Your task to perform on an android device: toggle translation in the chrome app Image 0: 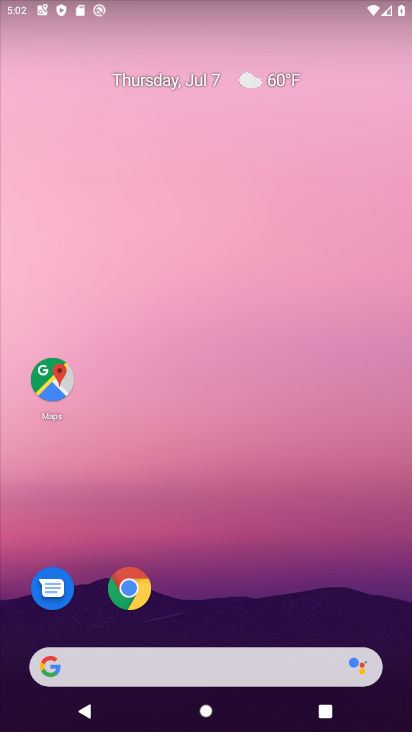
Step 0: click (236, 242)
Your task to perform on an android device: toggle translation in the chrome app Image 1: 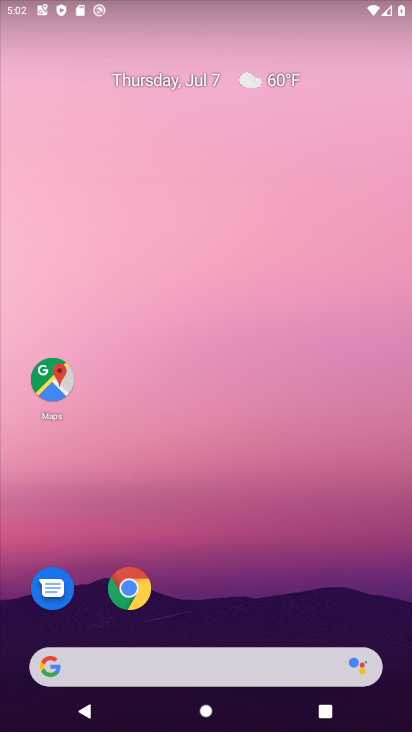
Step 1: click (143, 587)
Your task to perform on an android device: toggle translation in the chrome app Image 2: 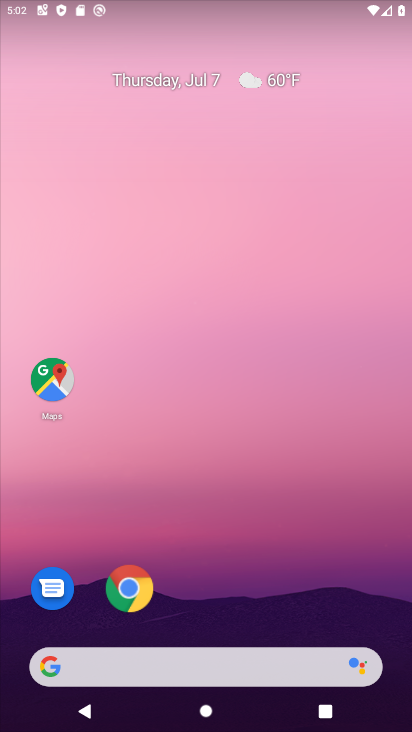
Step 2: click (134, 587)
Your task to perform on an android device: toggle translation in the chrome app Image 3: 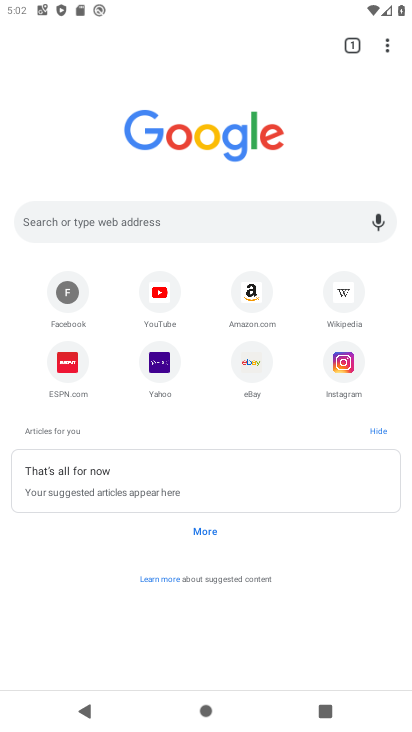
Step 3: drag from (386, 47) to (207, 380)
Your task to perform on an android device: toggle translation in the chrome app Image 4: 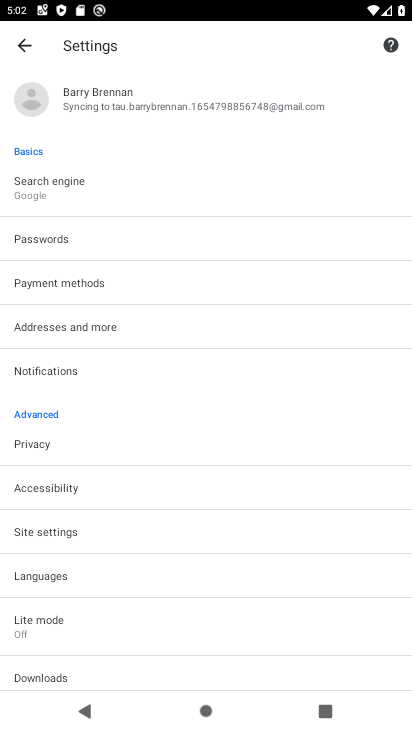
Step 4: click (68, 576)
Your task to perform on an android device: toggle translation in the chrome app Image 5: 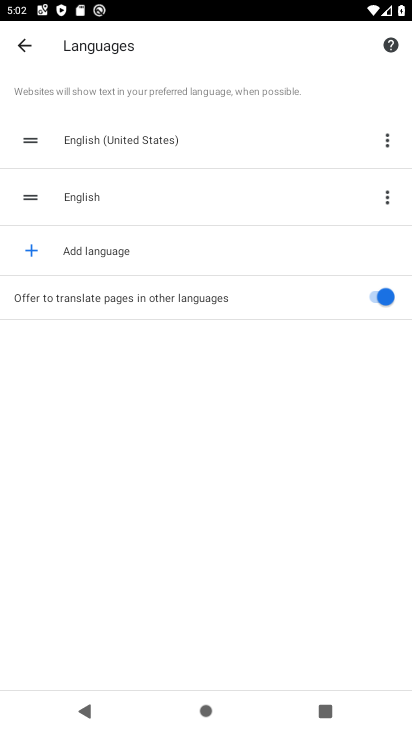
Step 5: click (386, 300)
Your task to perform on an android device: toggle translation in the chrome app Image 6: 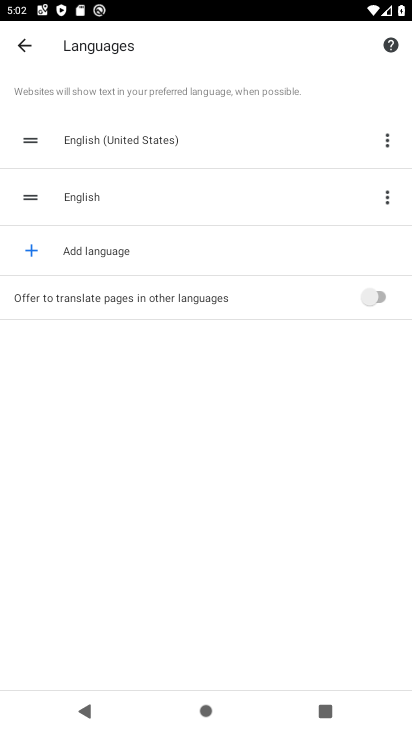
Step 6: task complete